Your task to perform on an android device: set default search engine in the chrome app Image 0: 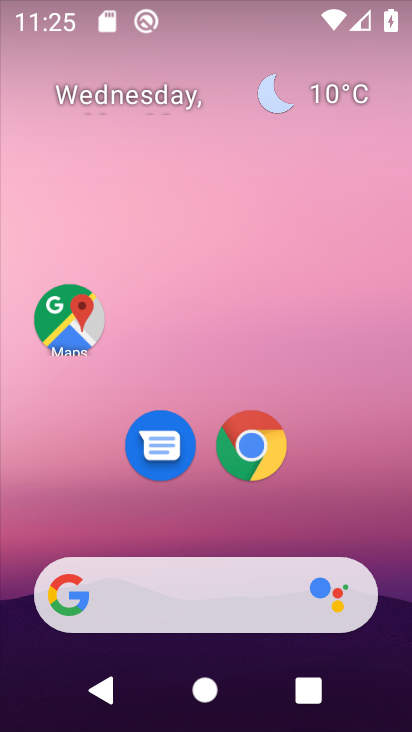
Step 0: click (277, 452)
Your task to perform on an android device: set default search engine in the chrome app Image 1: 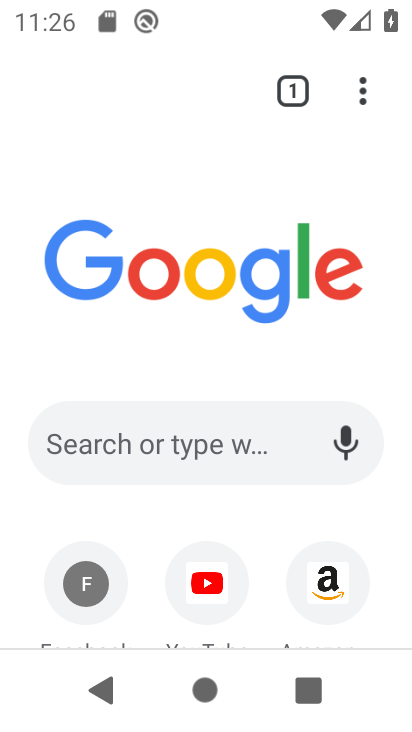
Step 1: click (364, 88)
Your task to perform on an android device: set default search engine in the chrome app Image 2: 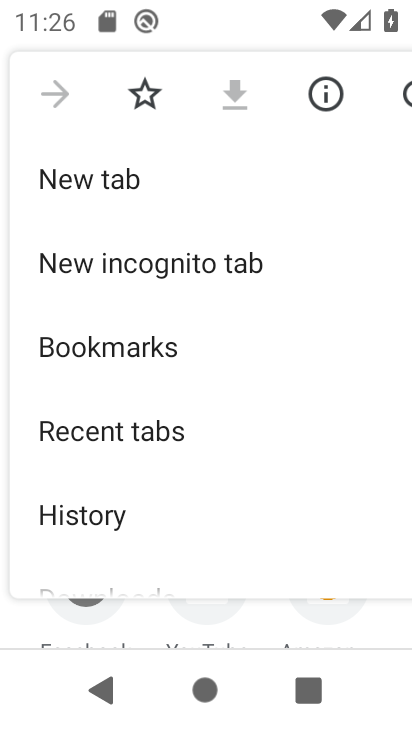
Step 2: drag from (217, 488) to (317, 80)
Your task to perform on an android device: set default search engine in the chrome app Image 3: 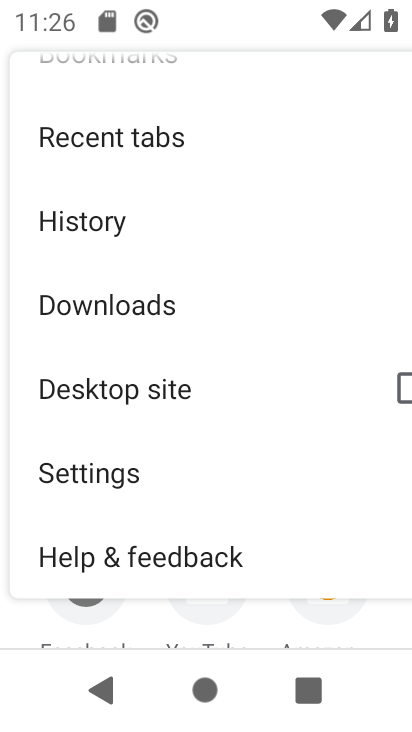
Step 3: click (145, 483)
Your task to perform on an android device: set default search engine in the chrome app Image 4: 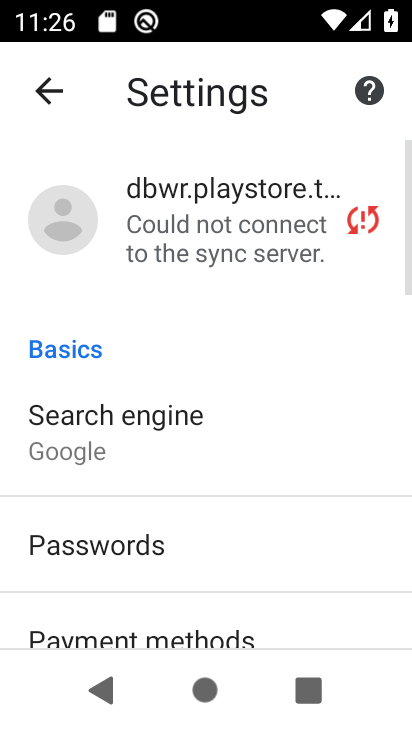
Step 4: click (126, 447)
Your task to perform on an android device: set default search engine in the chrome app Image 5: 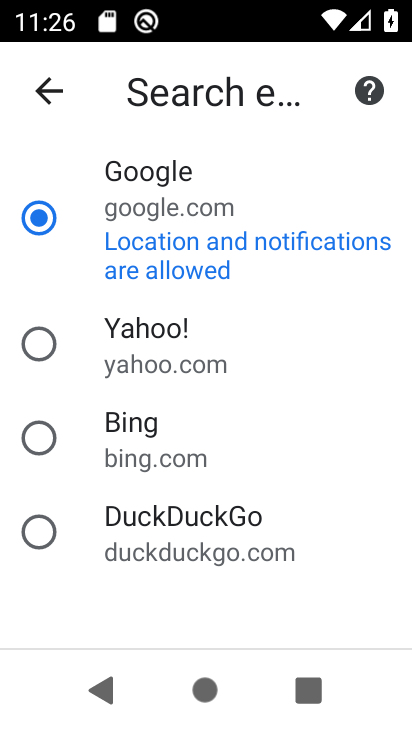
Step 5: click (43, 342)
Your task to perform on an android device: set default search engine in the chrome app Image 6: 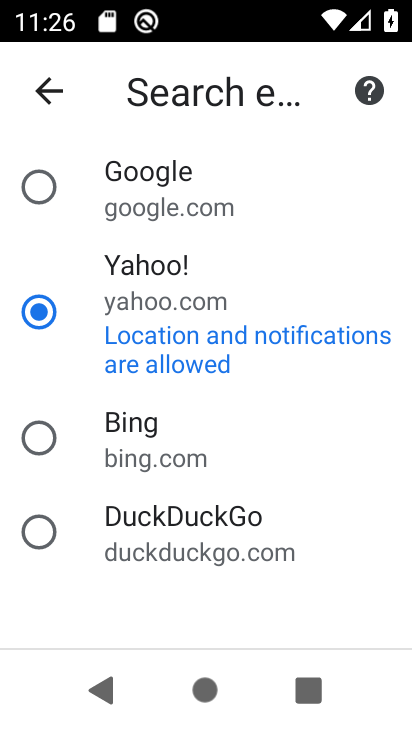
Step 6: task complete